Your task to perform on an android device: Open Google Maps and go to "Timeline" Image 0: 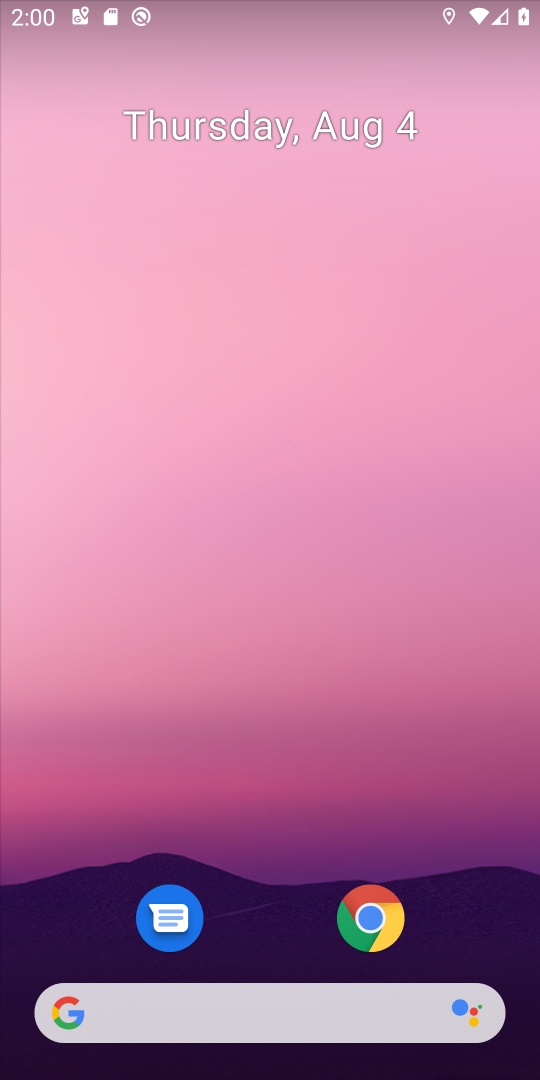
Step 0: drag from (256, 909) to (321, 362)
Your task to perform on an android device: Open Google Maps and go to "Timeline" Image 1: 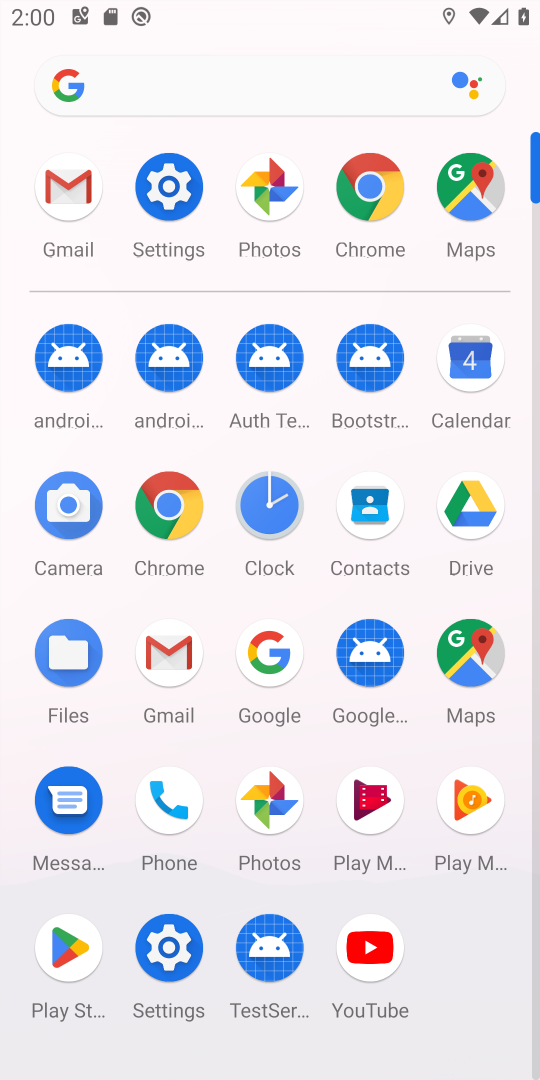
Step 1: click (460, 175)
Your task to perform on an android device: Open Google Maps and go to "Timeline" Image 2: 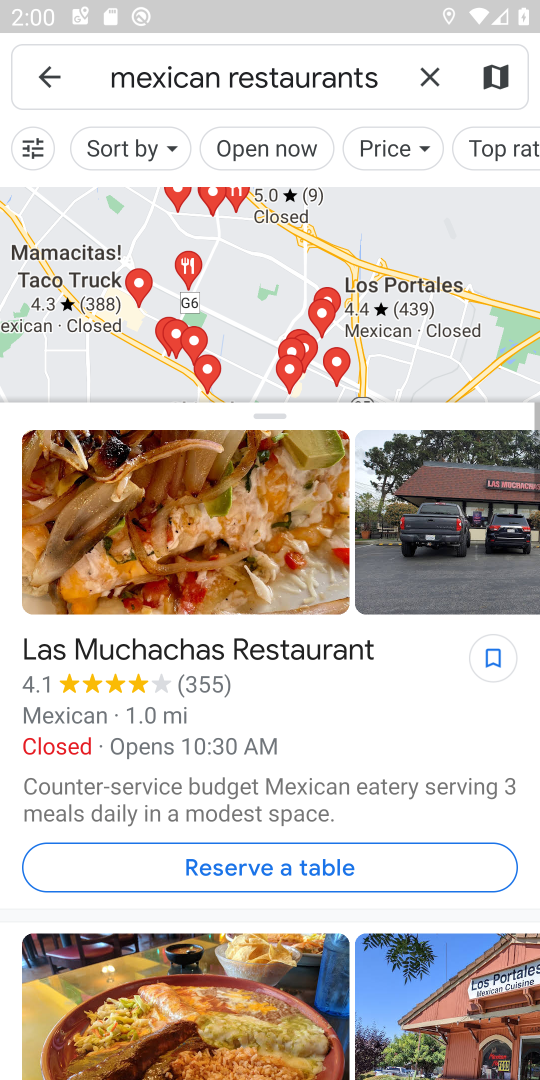
Step 2: click (32, 82)
Your task to perform on an android device: Open Google Maps and go to "Timeline" Image 3: 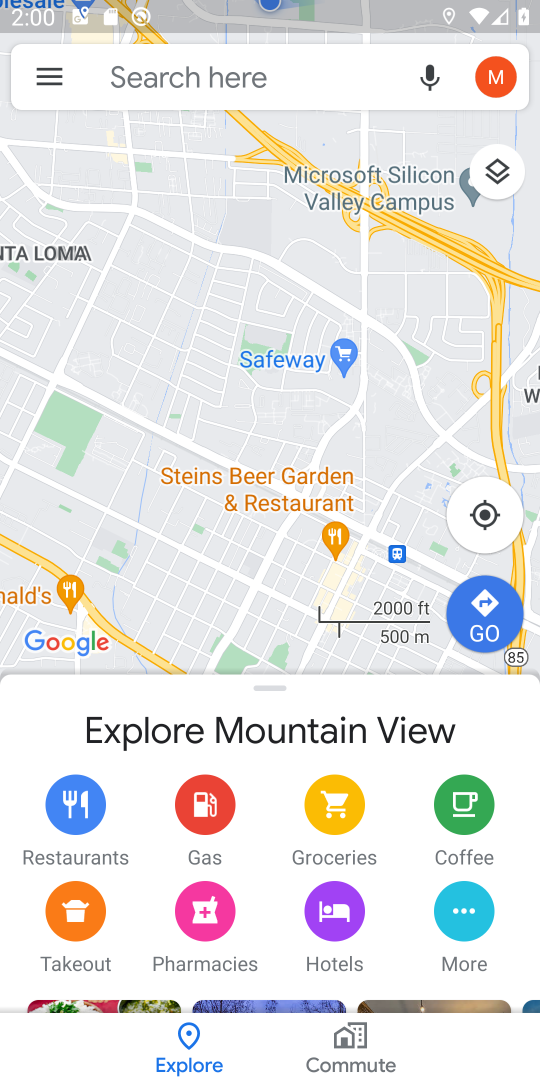
Step 3: click (67, 72)
Your task to perform on an android device: Open Google Maps and go to "Timeline" Image 4: 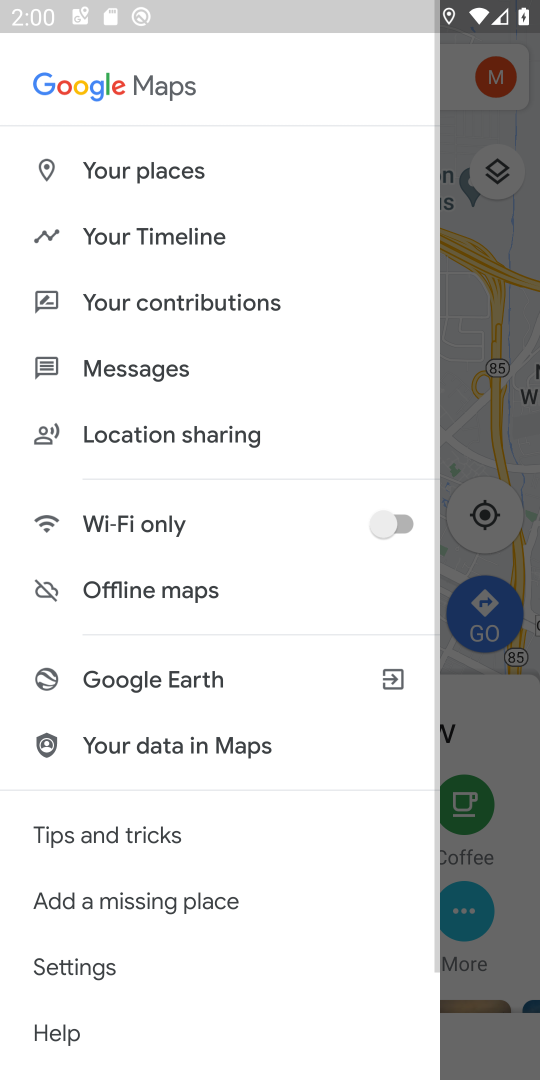
Step 4: click (170, 230)
Your task to perform on an android device: Open Google Maps and go to "Timeline" Image 5: 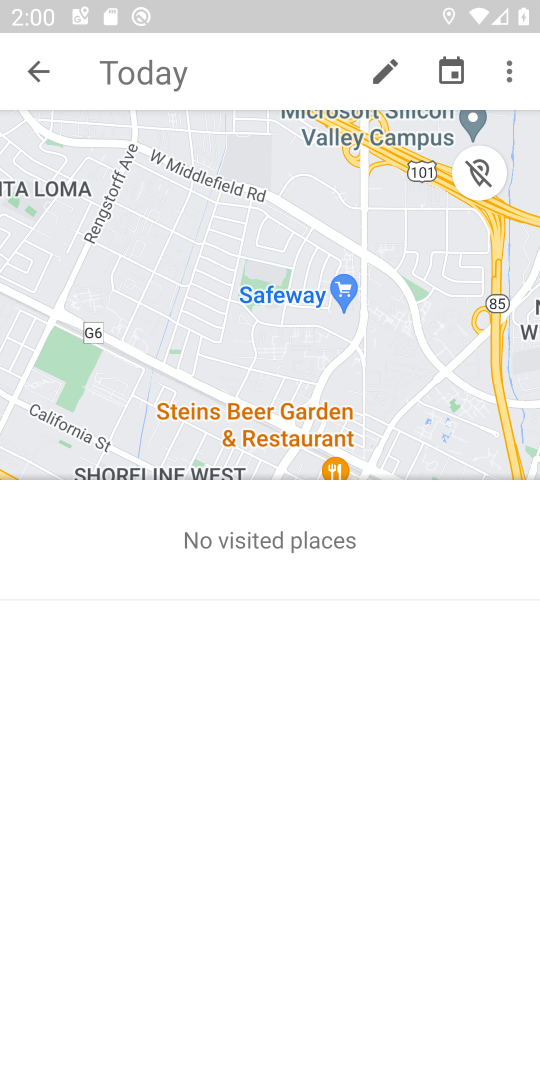
Step 5: task complete